Your task to perform on an android device: When is my next appointment? Image 0: 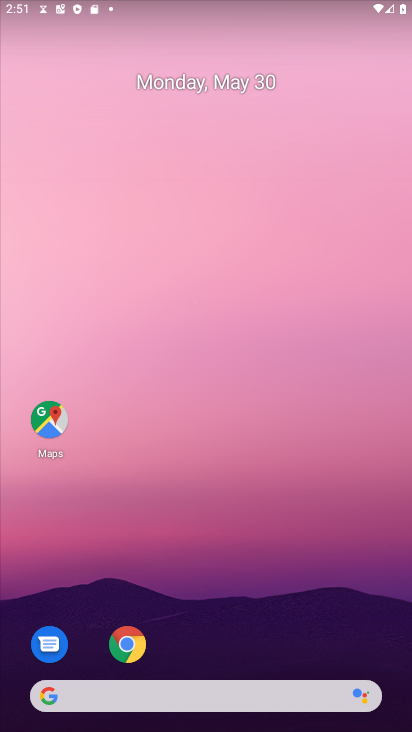
Step 0: press home button
Your task to perform on an android device: When is my next appointment? Image 1: 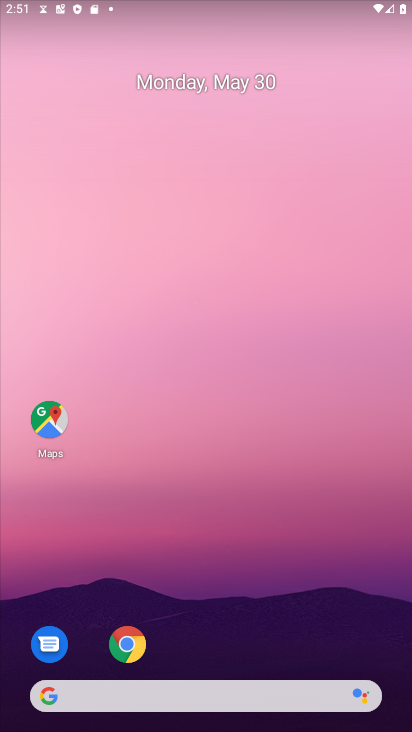
Step 1: drag from (333, 622) to (345, 183)
Your task to perform on an android device: When is my next appointment? Image 2: 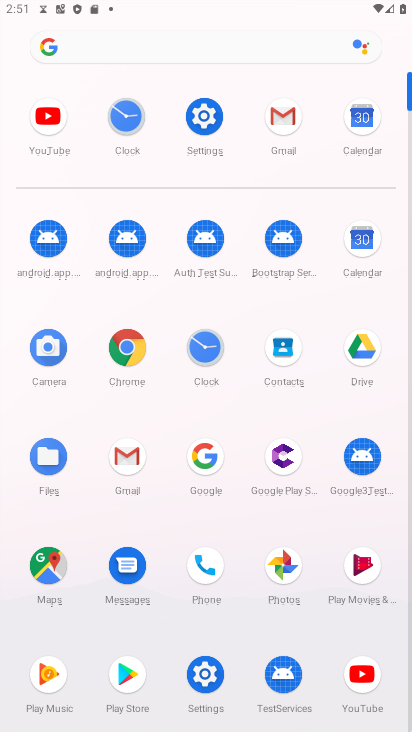
Step 2: click (361, 133)
Your task to perform on an android device: When is my next appointment? Image 3: 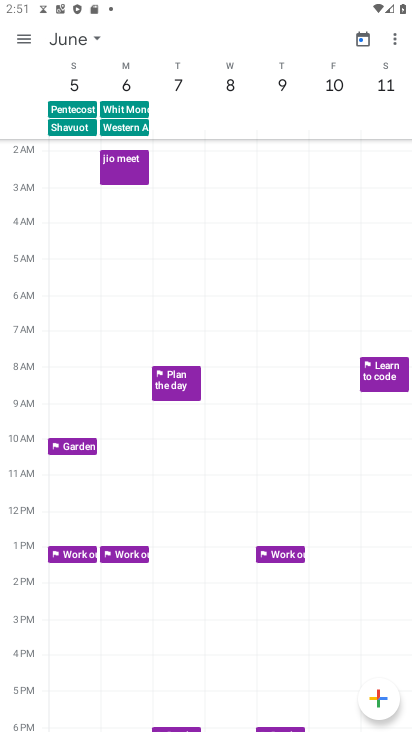
Step 3: click (17, 38)
Your task to perform on an android device: When is my next appointment? Image 4: 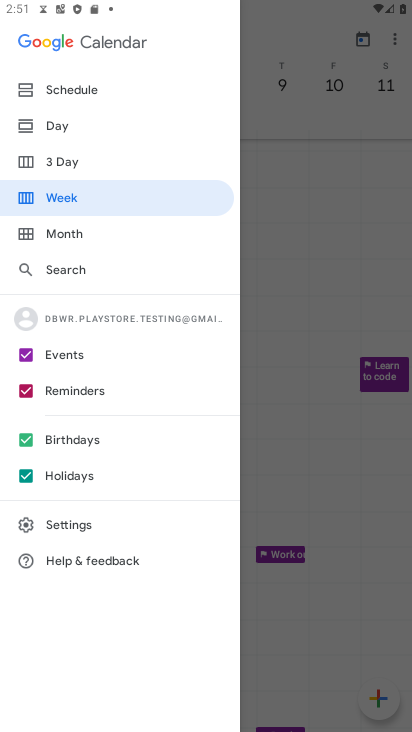
Step 4: click (71, 90)
Your task to perform on an android device: When is my next appointment? Image 5: 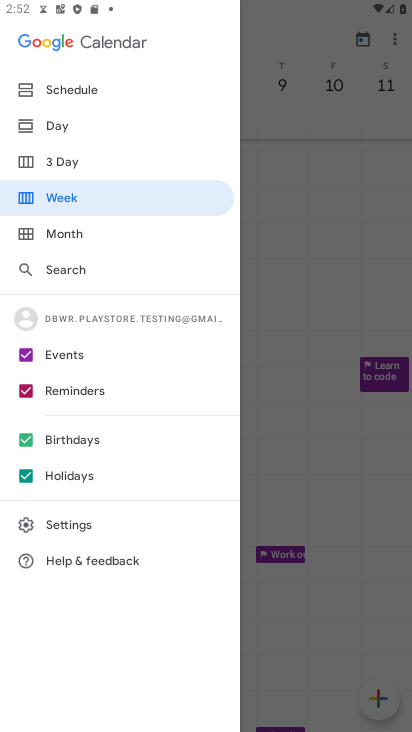
Step 5: click (69, 89)
Your task to perform on an android device: When is my next appointment? Image 6: 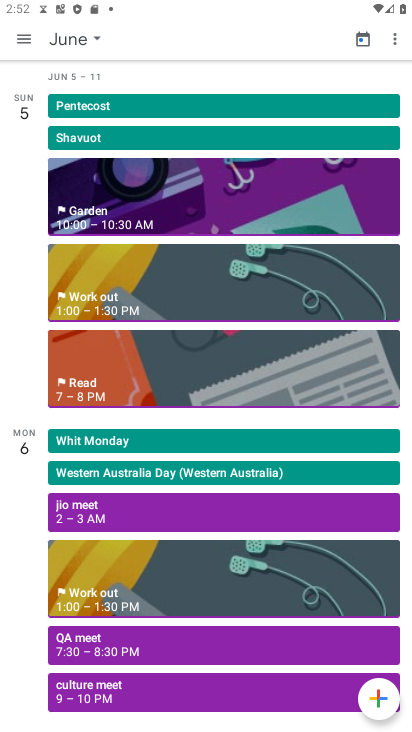
Step 6: task complete